Your task to perform on an android device: Open my contact list Image 0: 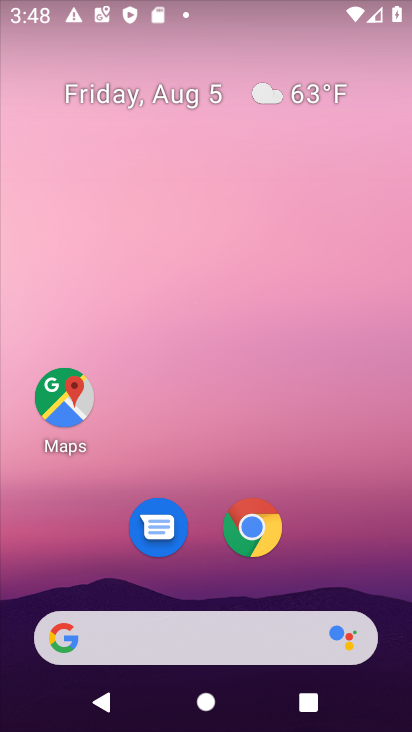
Step 0: drag from (216, 590) to (212, 85)
Your task to perform on an android device: Open my contact list Image 1: 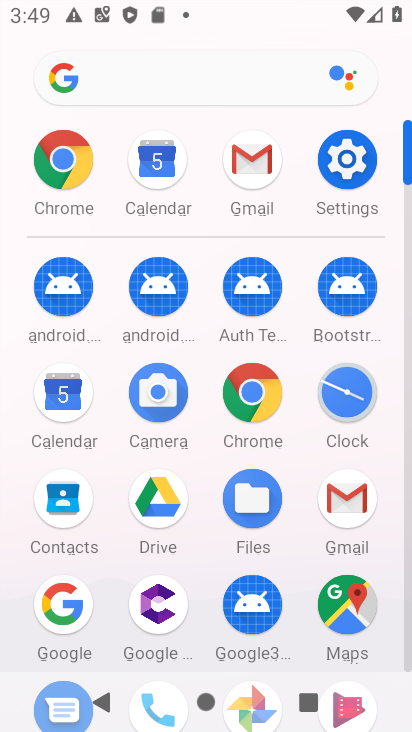
Step 1: click (65, 491)
Your task to perform on an android device: Open my contact list Image 2: 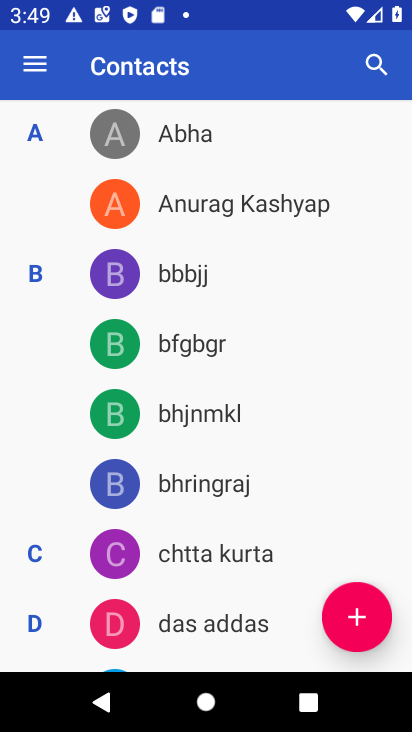
Step 2: task complete